Your task to perform on an android device: Show me productivity apps on the Play Store Image 0: 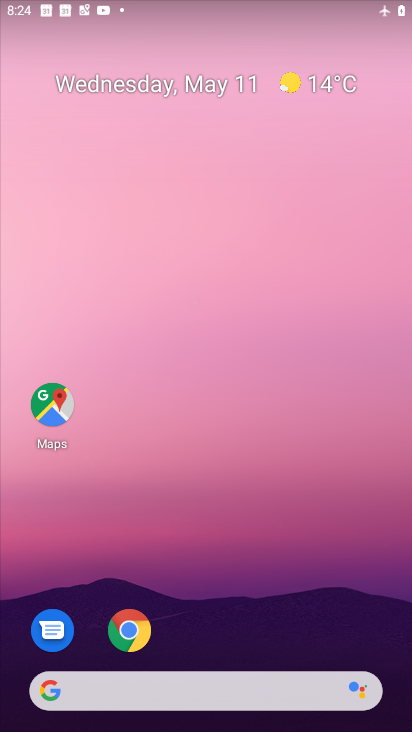
Step 0: drag from (190, 652) to (398, 0)
Your task to perform on an android device: Show me productivity apps on the Play Store Image 1: 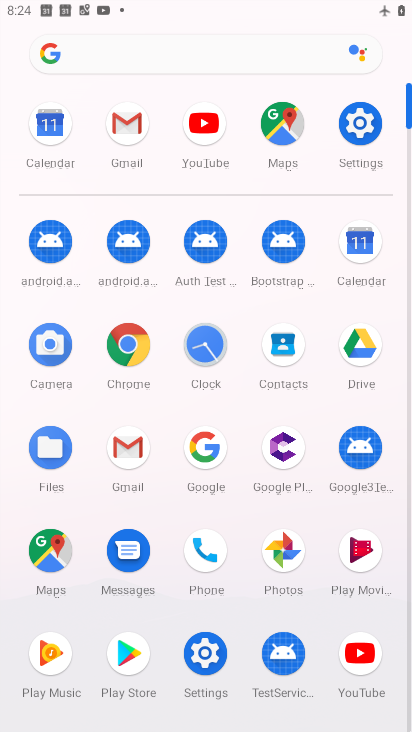
Step 1: click (115, 653)
Your task to perform on an android device: Show me productivity apps on the Play Store Image 2: 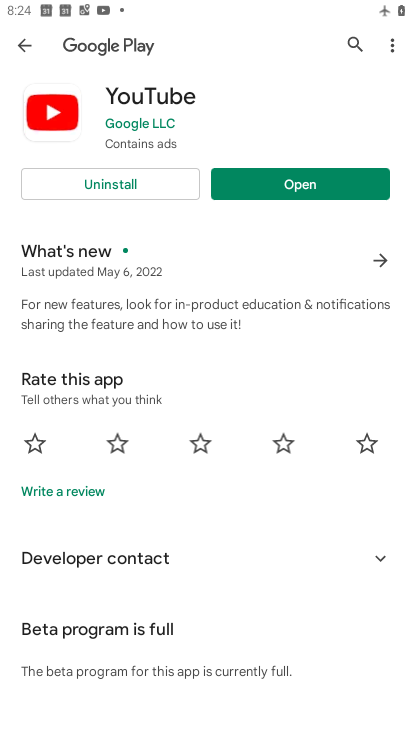
Step 2: click (19, 50)
Your task to perform on an android device: Show me productivity apps on the Play Store Image 3: 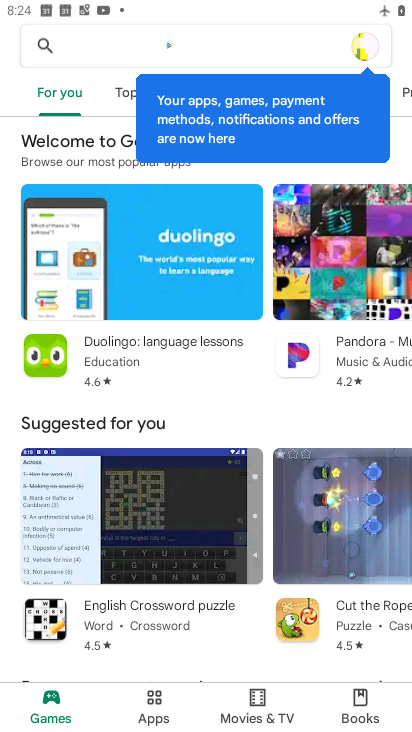
Step 3: click (147, 703)
Your task to perform on an android device: Show me productivity apps on the Play Store Image 4: 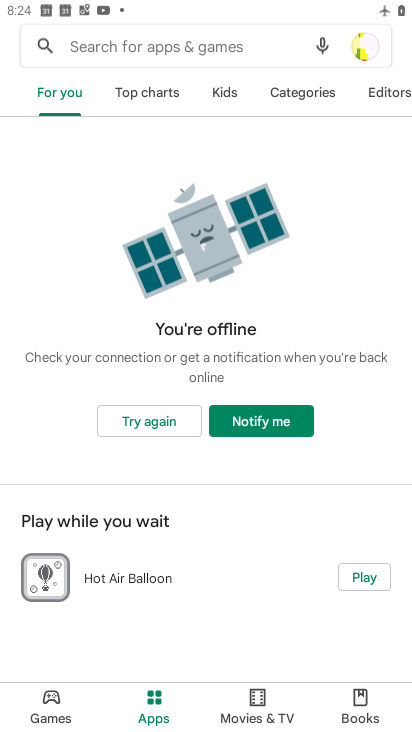
Step 4: click (284, 86)
Your task to perform on an android device: Show me productivity apps on the Play Store Image 5: 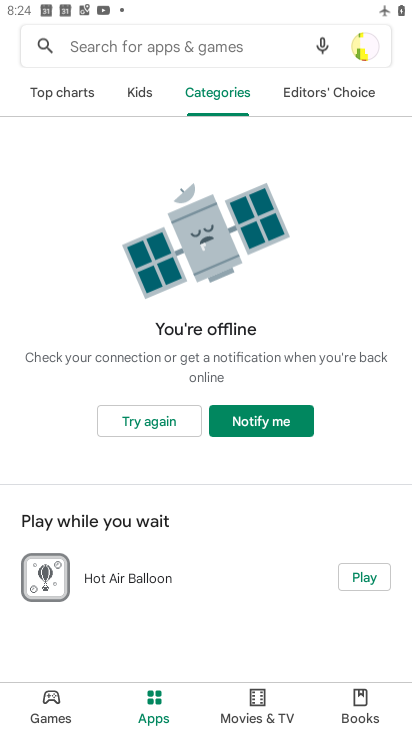
Step 5: click (154, 419)
Your task to perform on an android device: Show me productivity apps on the Play Store Image 6: 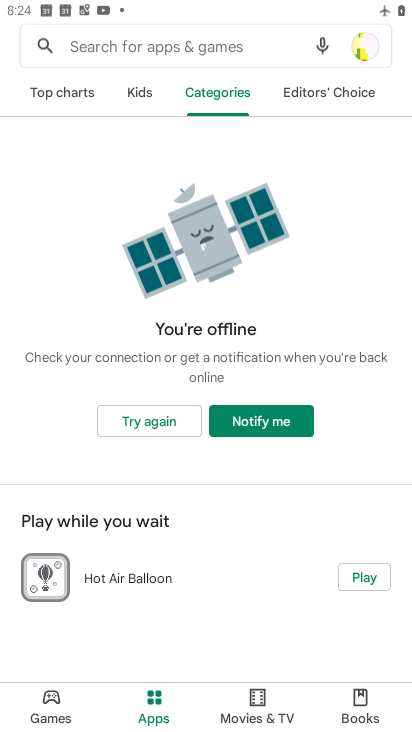
Step 6: click (154, 419)
Your task to perform on an android device: Show me productivity apps on the Play Store Image 7: 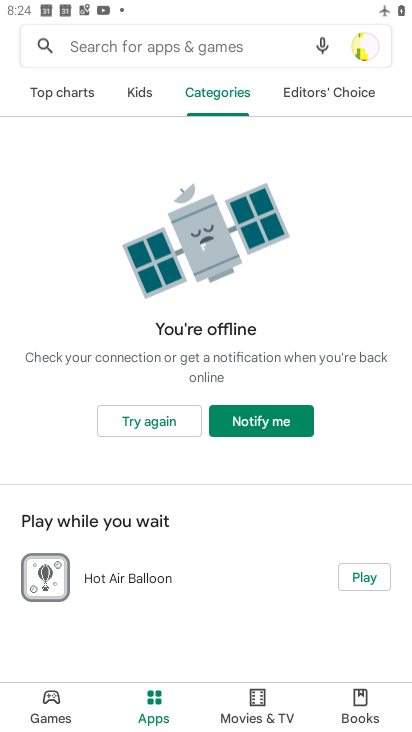
Step 7: task complete